Your task to perform on an android device: Open the calendar app, open the side menu, and click the "Day" option Image 0: 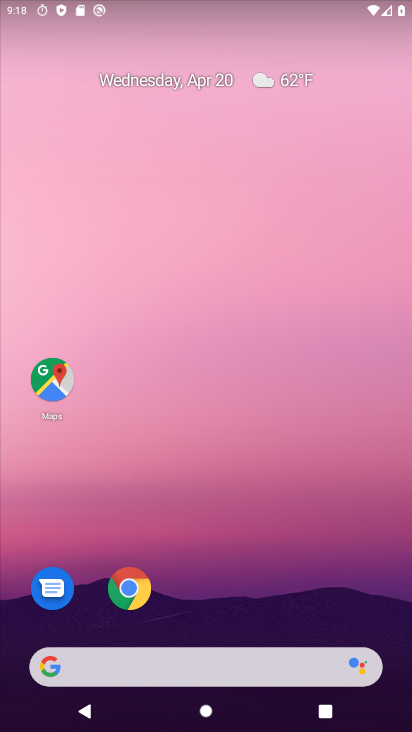
Step 0: drag from (266, 539) to (218, 6)
Your task to perform on an android device: Open the calendar app, open the side menu, and click the "Day" option Image 1: 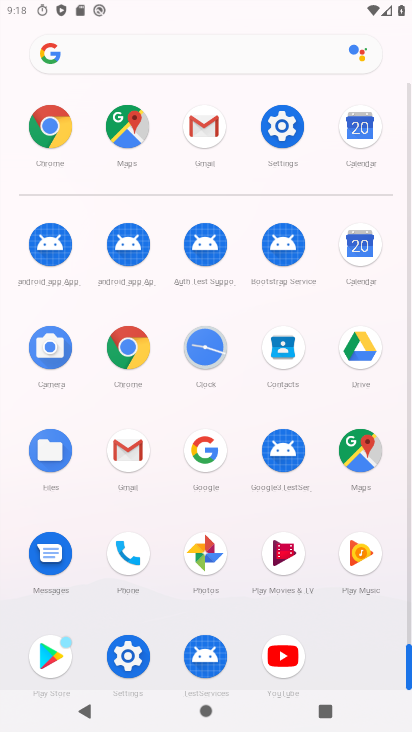
Step 1: drag from (9, 461) to (0, 308)
Your task to perform on an android device: Open the calendar app, open the side menu, and click the "Day" option Image 2: 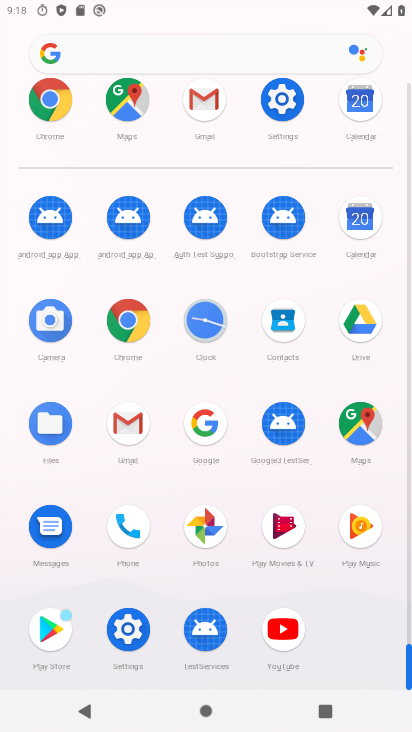
Step 2: click (358, 222)
Your task to perform on an android device: Open the calendar app, open the side menu, and click the "Day" option Image 3: 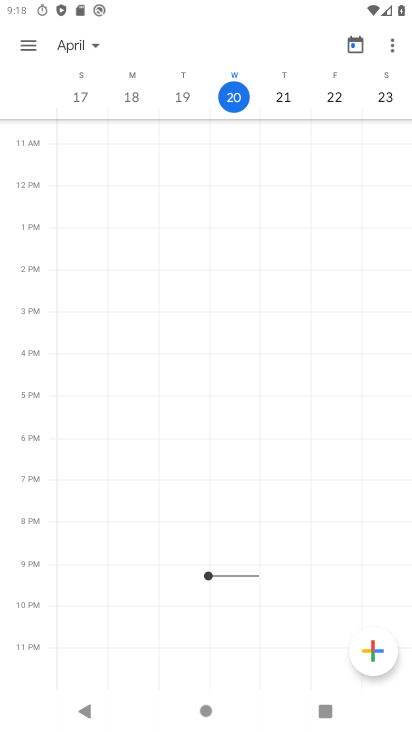
Step 3: click (22, 47)
Your task to perform on an android device: Open the calendar app, open the side menu, and click the "Day" option Image 4: 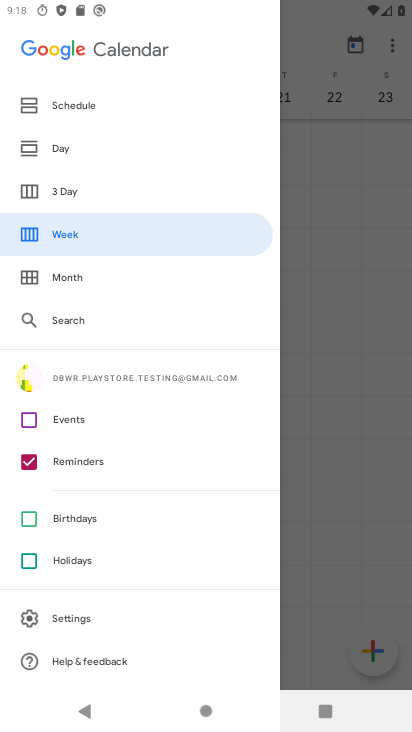
Step 4: click (75, 143)
Your task to perform on an android device: Open the calendar app, open the side menu, and click the "Day" option Image 5: 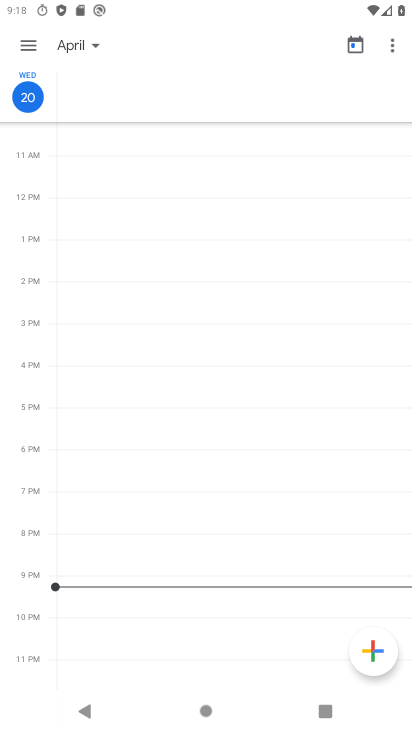
Step 5: task complete